Your task to perform on an android device: Play the last video I watched on Youtube Image 0: 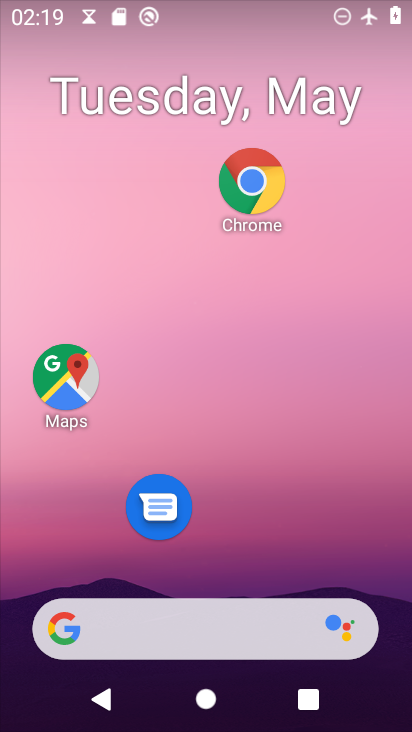
Step 0: drag from (329, 490) to (315, 238)
Your task to perform on an android device: Play the last video I watched on Youtube Image 1: 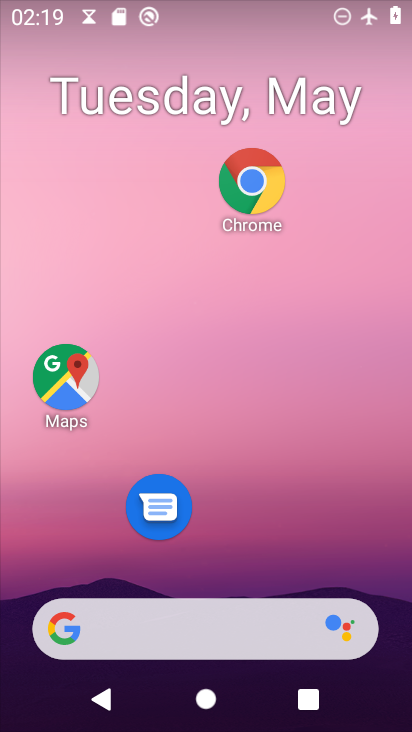
Step 1: drag from (250, 565) to (290, 259)
Your task to perform on an android device: Play the last video I watched on Youtube Image 2: 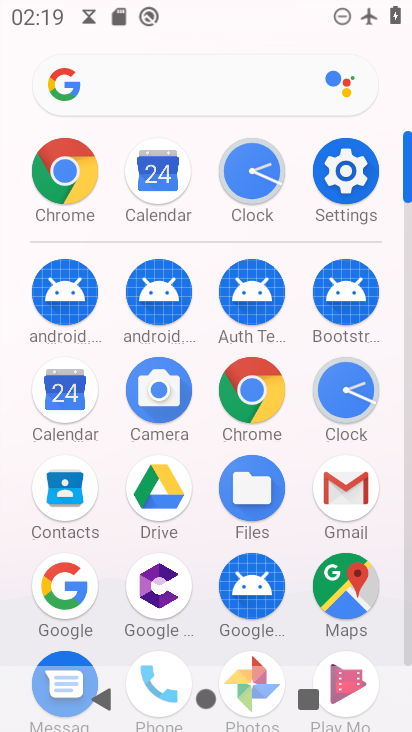
Step 2: drag from (303, 617) to (294, 237)
Your task to perform on an android device: Play the last video I watched on Youtube Image 3: 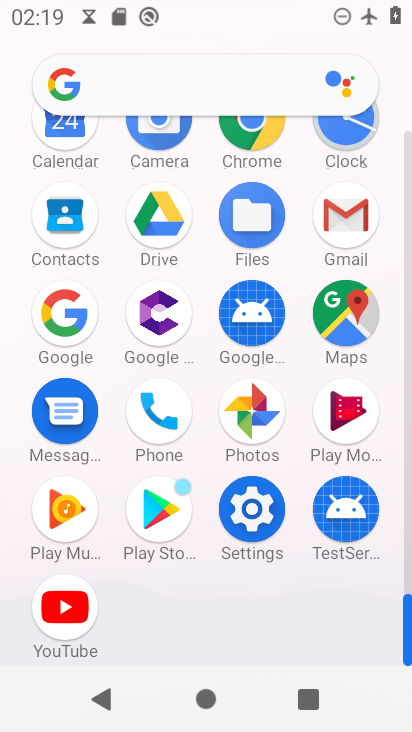
Step 3: click (69, 593)
Your task to perform on an android device: Play the last video I watched on Youtube Image 4: 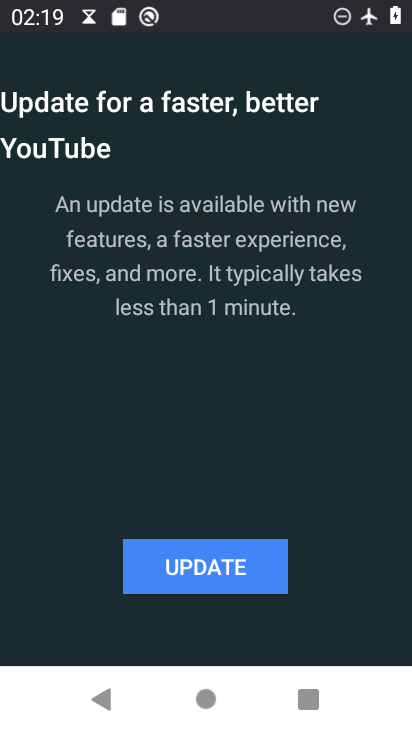
Step 4: task complete